Your task to perform on an android device: Open Android settings Image 0: 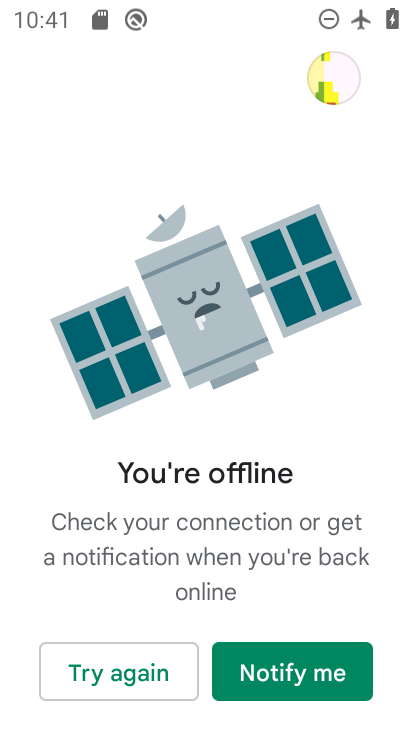
Step 0: press home button
Your task to perform on an android device: Open Android settings Image 1: 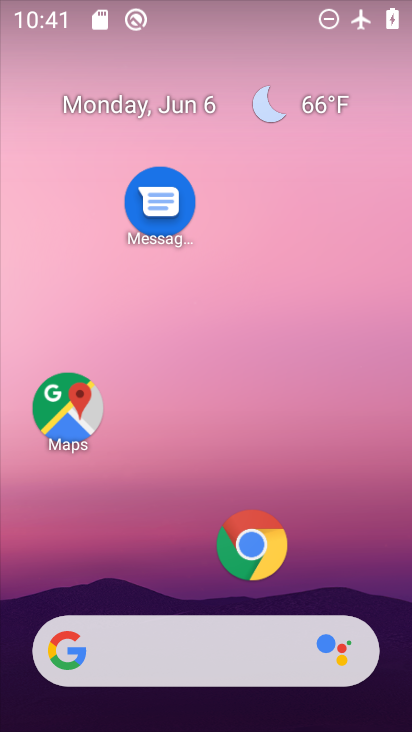
Step 1: drag from (169, 481) to (15, 118)
Your task to perform on an android device: Open Android settings Image 2: 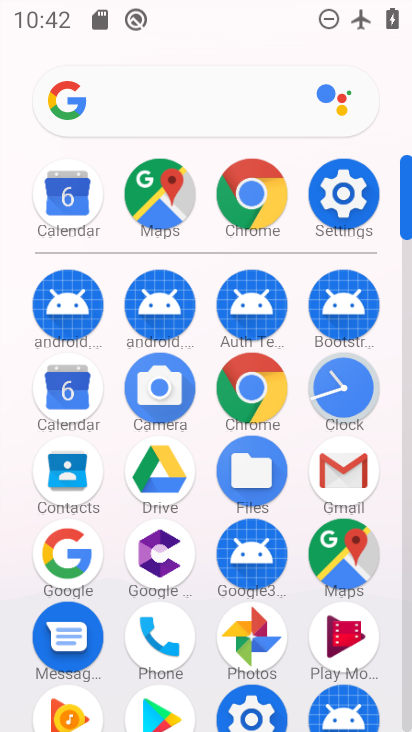
Step 2: click (342, 201)
Your task to perform on an android device: Open Android settings Image 3: 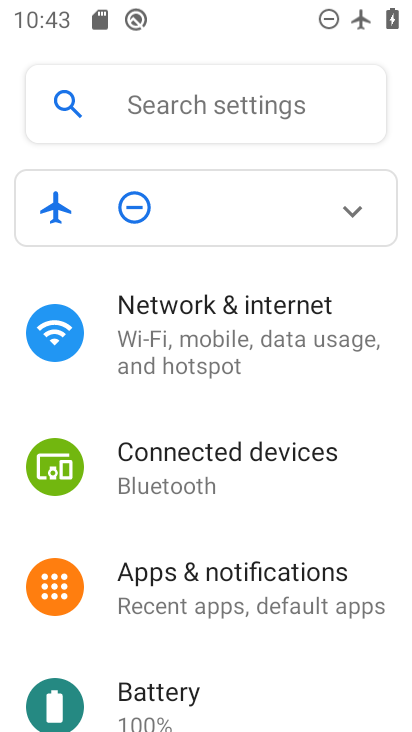
Step 3: task complete